Your task to perform on an android device: Go to notification settings Image 0: 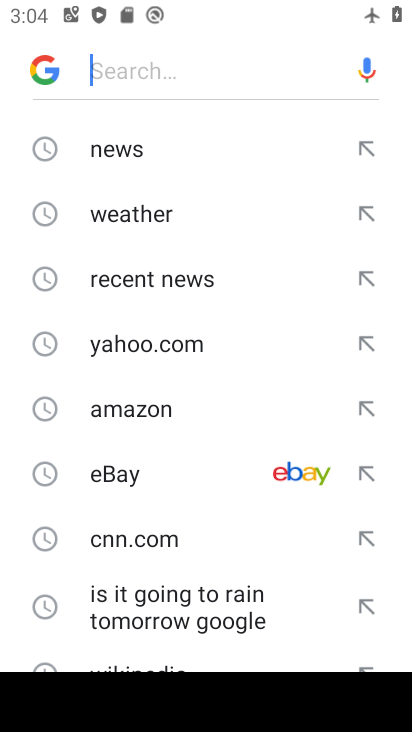
Step 0: press home button
Your task to perform on an android device: Go to notification settings Image 1: 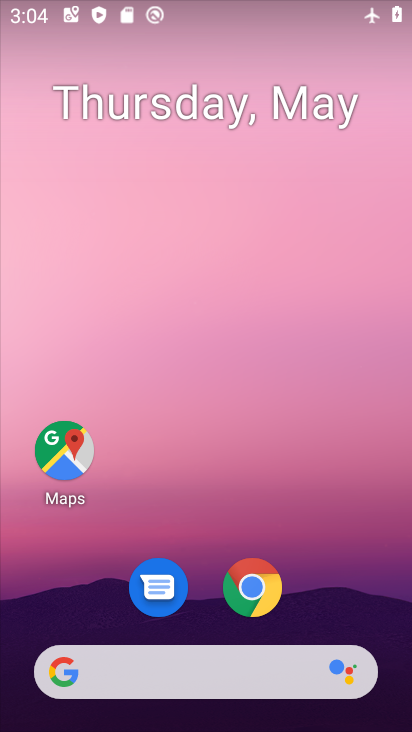
Step 1: drag from (328, 618) to (338, 236)
Your task to perform on an android device: Go to notification settings Image 2: 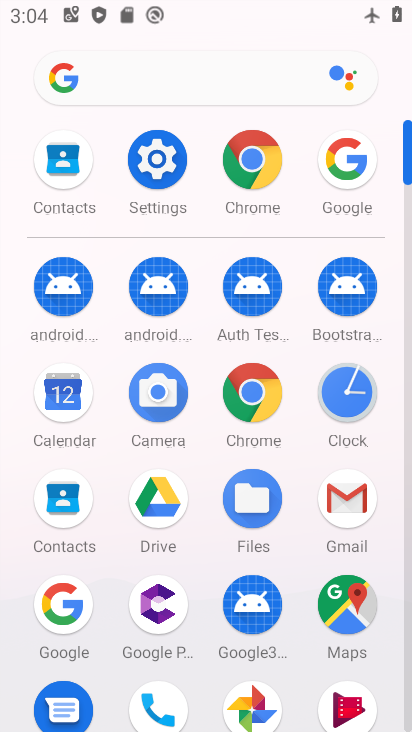
Step 2: click (155, 152)
Your task to perform on an android device: Go to notification settings Image 3: 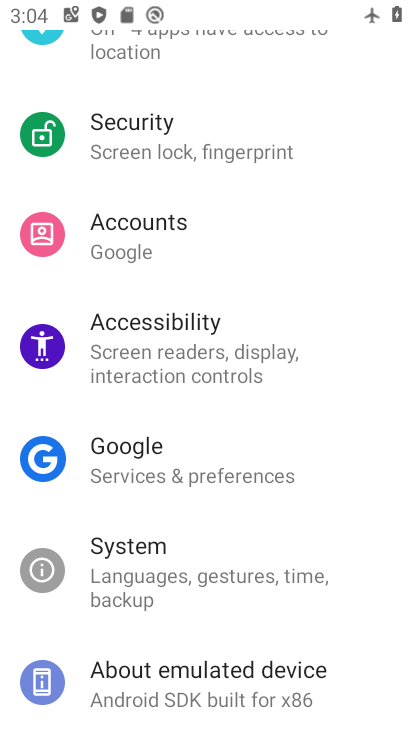
Step 3: drag from (300, 231) to (224, 727)
Your task to perform on an android device: Go to notification settings Image 4: 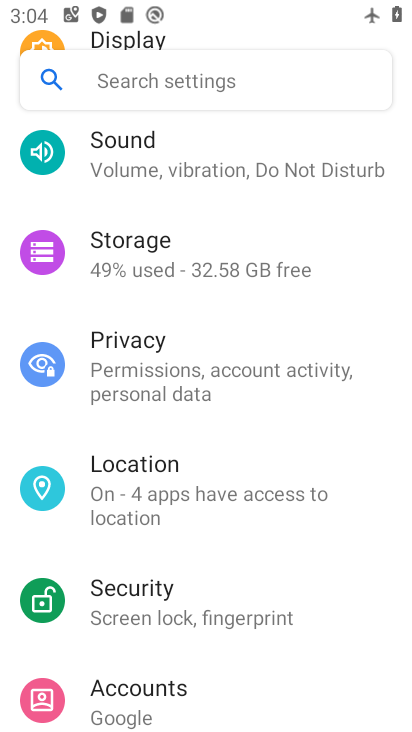
Step 4: drag from (250, 309) to (232, 604)
Your task to perform on an android device: Go to notification settings Image 5: 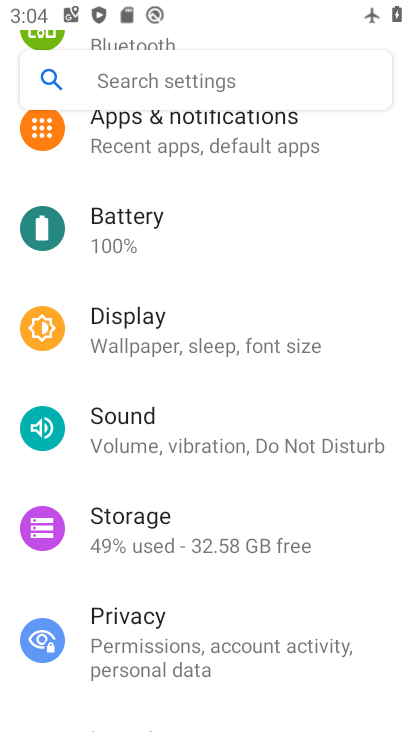
Step 5: drag from (230, 347) to (217, 602)
Your task to perform on an android device: Go to notification settings Image 6: 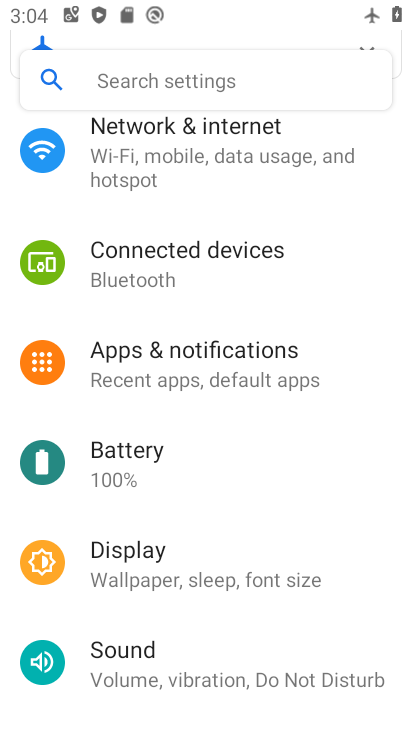
Step 6: click (243, 377)
Your task to perform on an android device: Go to notification settings Image 7: 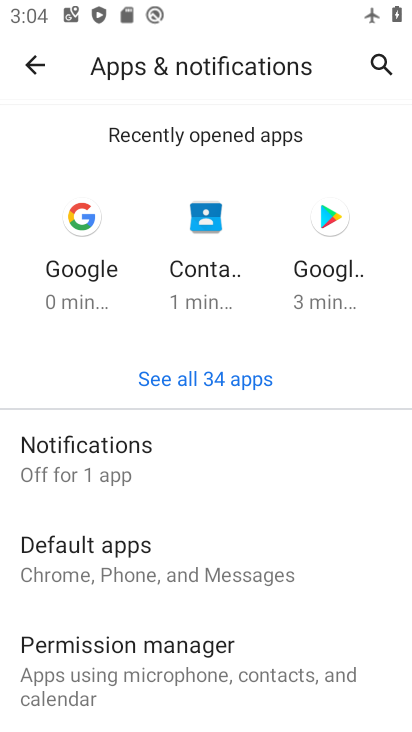
Step 7: click (250, 478)
Your task to perform on an android device: Go to notification settings Image 8: 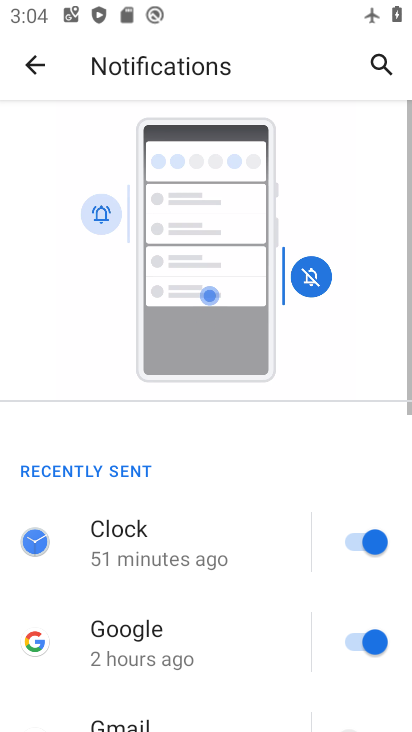
Step 8: task complete